Your task to perform on an android device: toggle notifications settings in the gmail app Image 0: 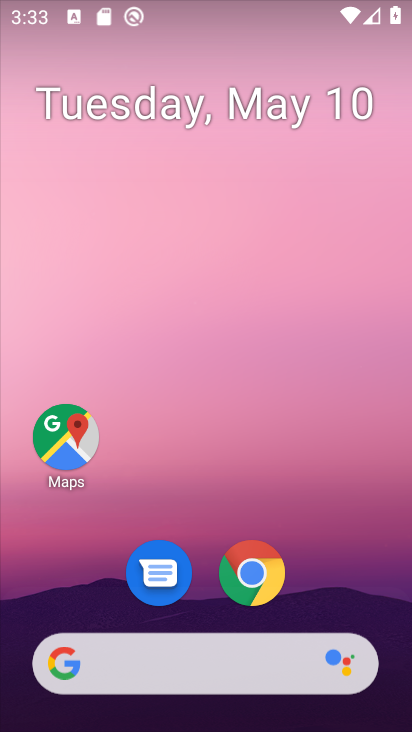
Step 0: click (229, 579)
Your task to perform on an android device: toggle notifications settings in the gmail app Image 1: 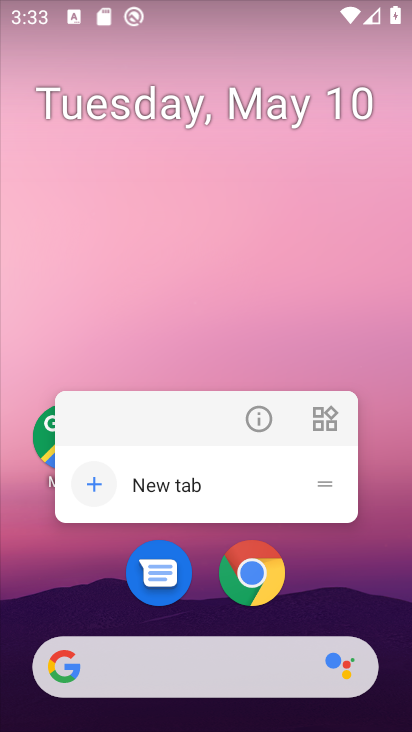
Step 1: click (191, 619)
Your task to perform on an android device: toggle notifications settings in the gmail app Image 2: 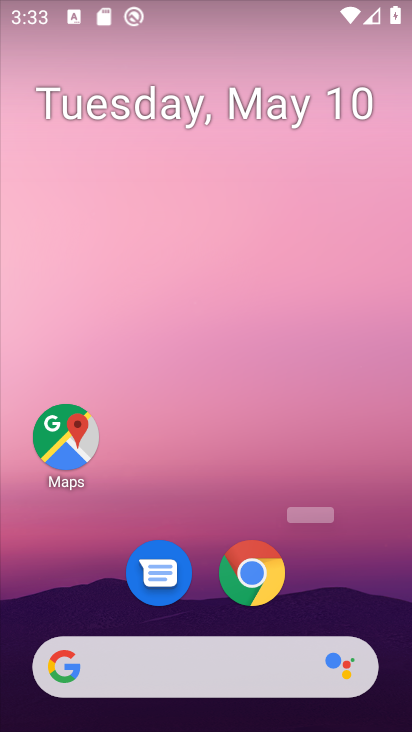
Step 2: drag from (191, 619) to (245, 239)
Your task to perform on an android device: toggle notifications settings in the gmail app Image 3: 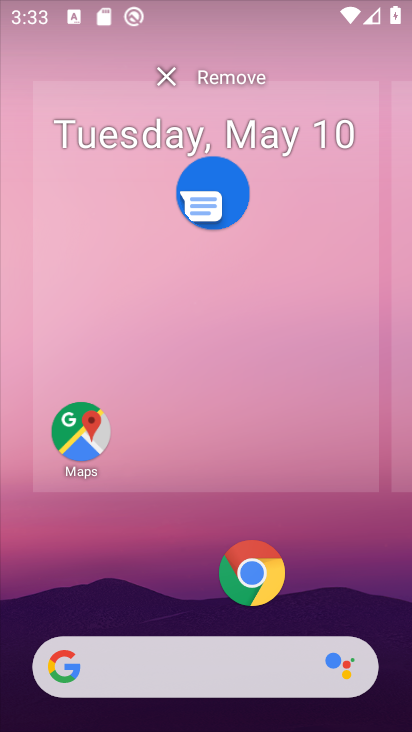
Step 3: click (245, 233)
Your task to perform on an android device: toggle notifications settings in the gmail app Image 4: 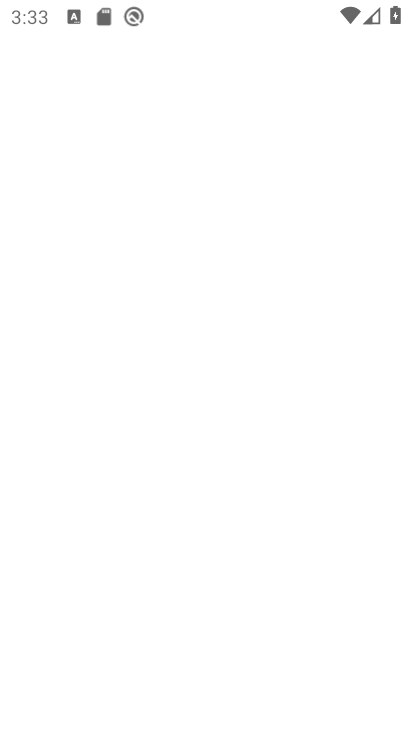
Step 4: press home button
Your task to perform on an android device: toggle notifications settings in the gmail app Image 5: 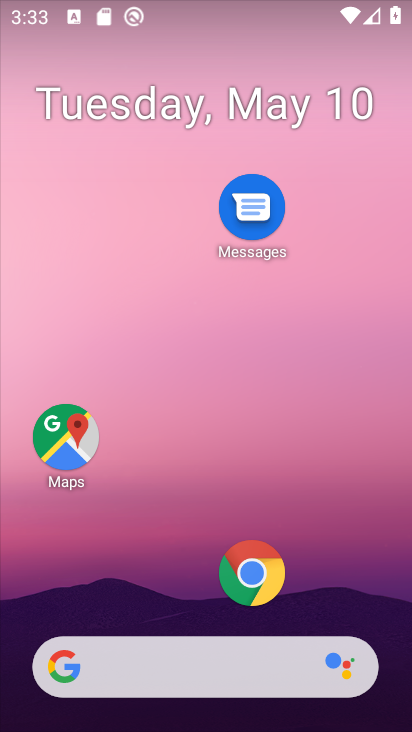
Step 5: drag from (181, 608) to (237, 121)
Your task to perform on an android device: toggle notifications settings in the gmail app Image 6: 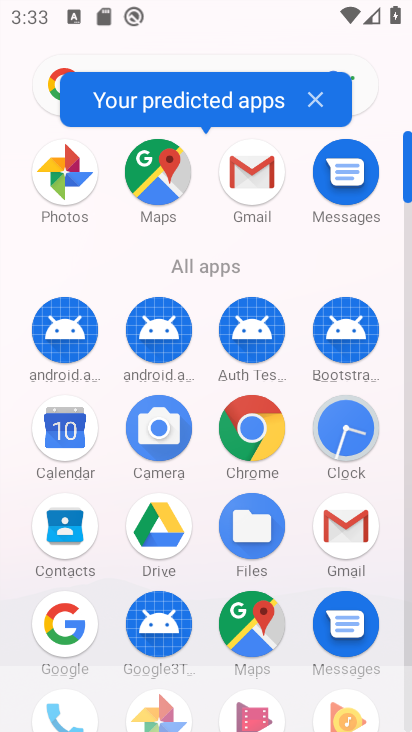
Step 6: drag from (210, 592) to (222, 292)
Your task to perform on an android device: toggle notifications settings in the gmail app Image 7: 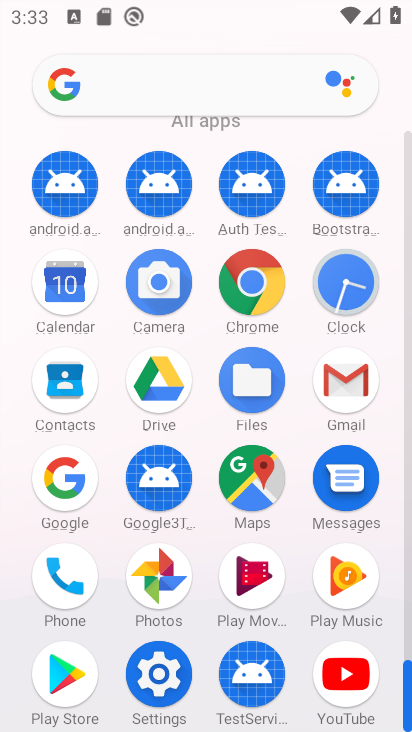
Step 7: drag from (189, 572) to (216, 351)
Your task to perform on an android device: toggle notifications settings in the gmail app Image 8: 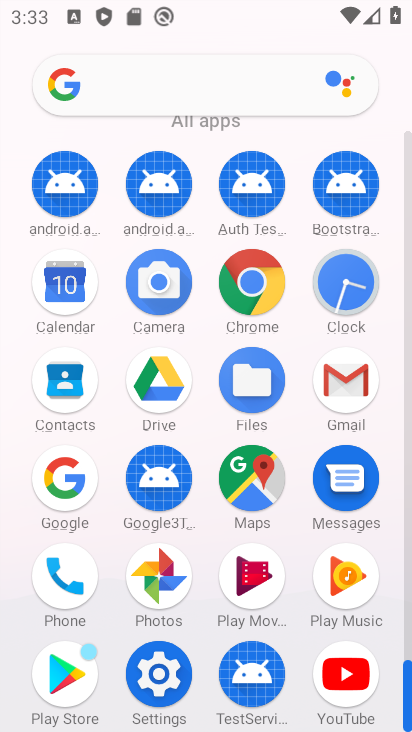
Step 8: click (344, 396)
Your task to perform on an android device: toggle notifications settings in the gmail app Image 9: 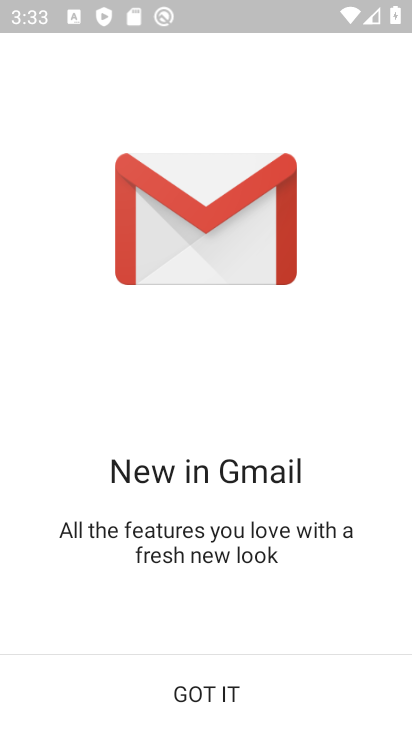
Step 9: click (262, 698)
Your task to perform on an android device: toggle notifications settings in the gmail app Image 10: 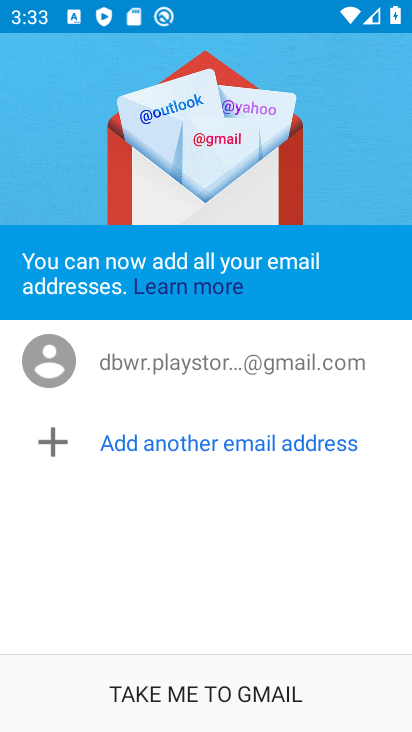
Step 10: click (255, 691)
Your task to perform on an android device: toggle notifications settings in the gmail app Image 11: 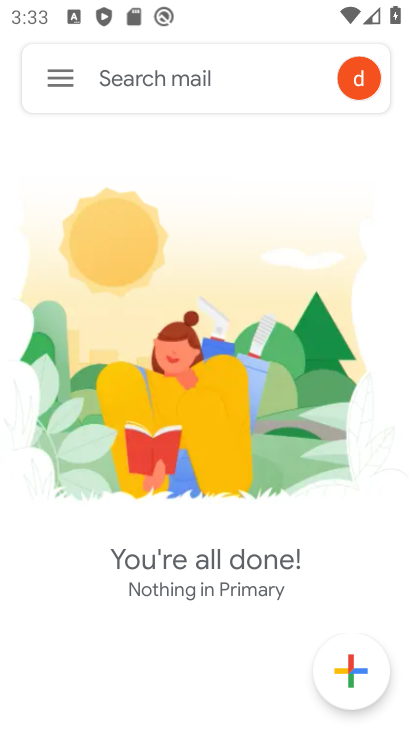
Step 11: click (56, 91)
Your task to perform on an android device: toggle notifications settings in the gmail app Image 12: 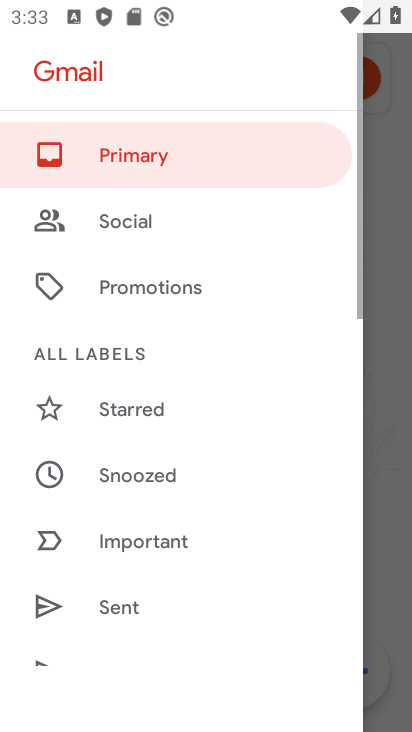
Step 12: drag from (187, 642) to (267, 305)
Your task to perform on an android device: toggle notifications settings in the gmail app Image 13: 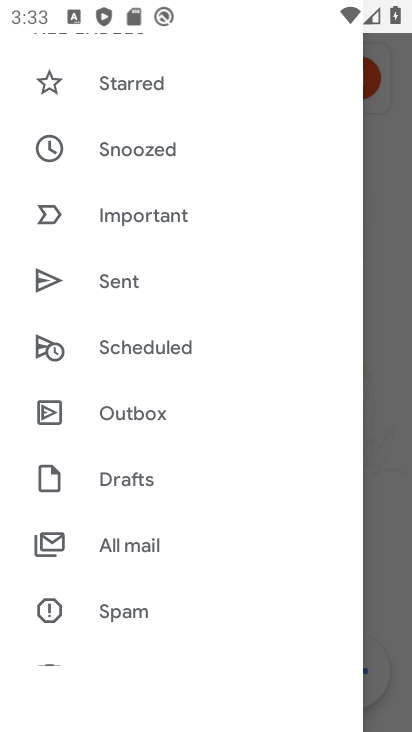
Step 13: drag from (157, 621) to (199, 520)
Your task to perform on an android device: toggle notifications settings in the gmail app Image 14: 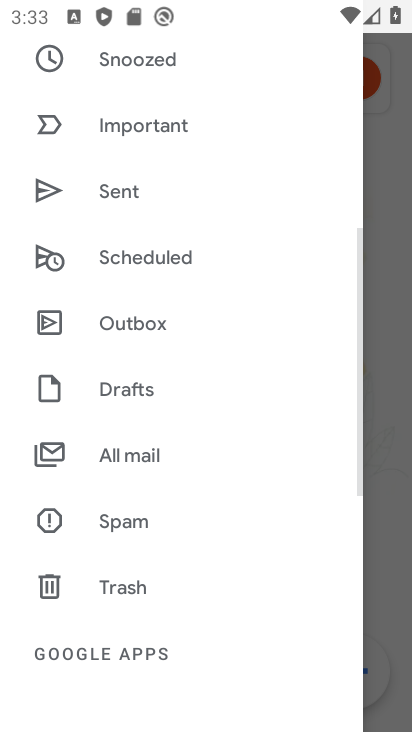
Step 14: drag from (184, 551) to (215, 431)
Your task to perform on an android device: toggle notifications settings in the gmail app Image 15: 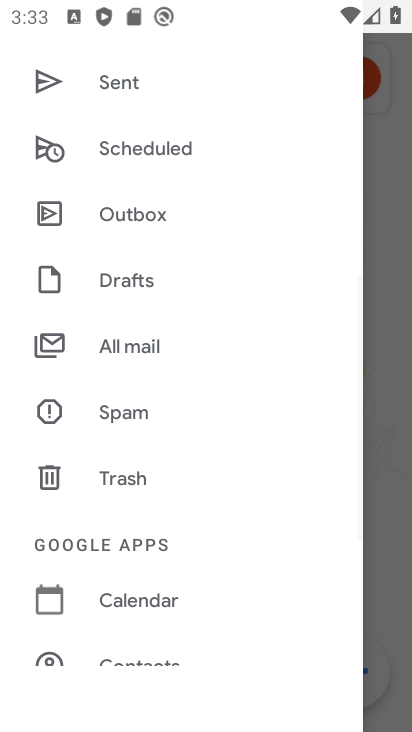
Step 15: drag from (171, 605) to (252, 350)
Your task to perform on an android device: toggle notifications settings in the gmail app Image 16: 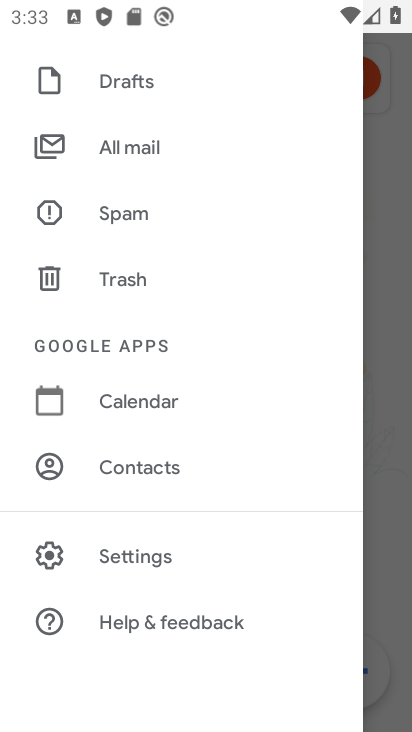
Step 16: click (163, 543)
Your task to perform on an android device: toggle notifications settings in the gmail app Image 17: 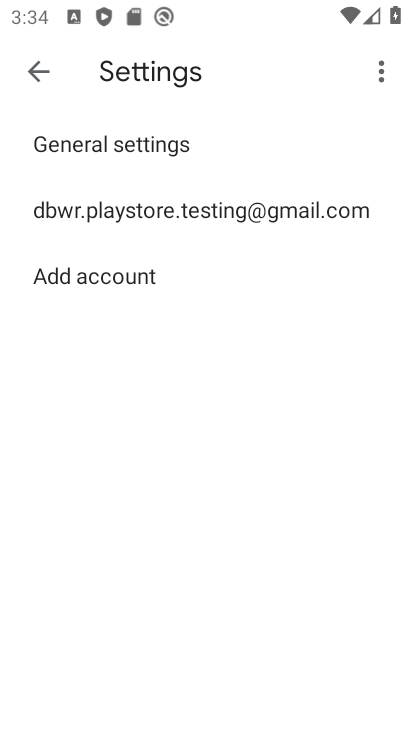
Step 17: click (234, 206)
Your task to perform on an android device: toggle notifications settings in the gmail app Image 18: 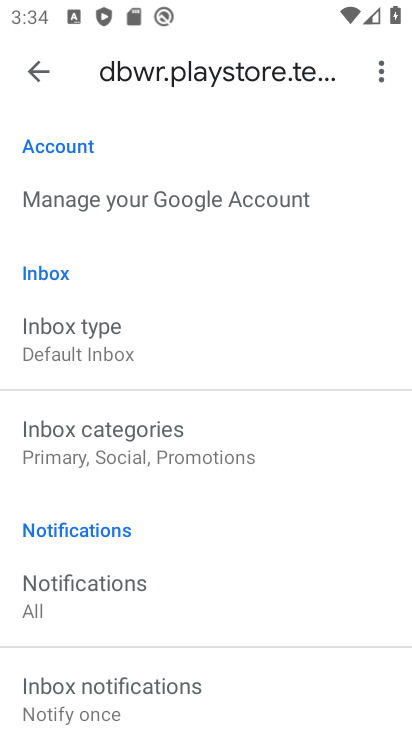
Step 18: drag from (188, 586) to (231, 472)
Your task to perform on an android device: toggle notifications settings in the gmail app Image 19: 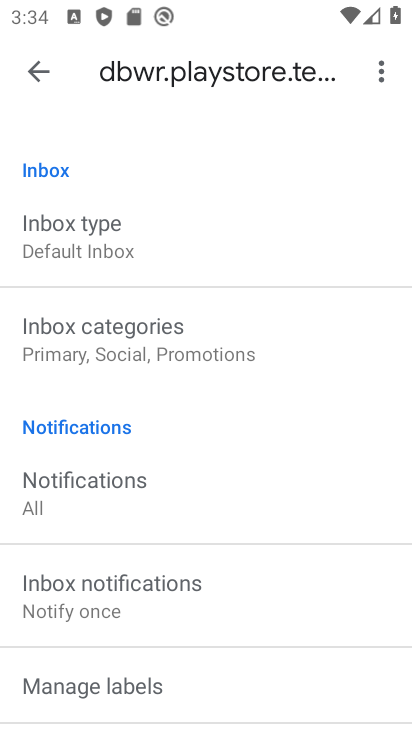
Step 19: drag from (194, 668) to (238, 452)
Your task to perform on an android device: toggle notifications settings in the gmail app Image 20: 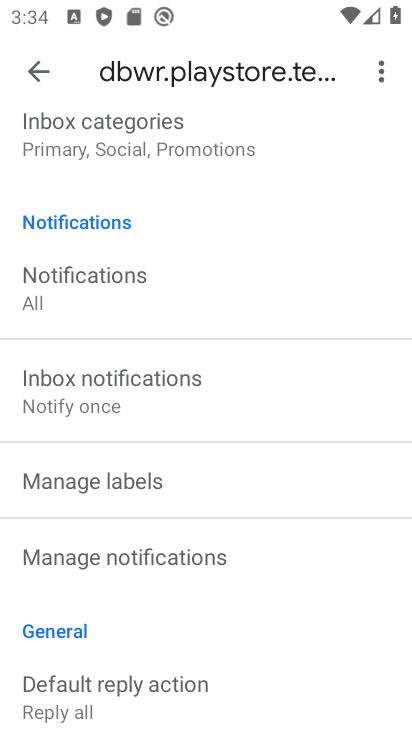
Step 20: click (192, 566)
Your task to perform on an android device: toggle notifications settings in the gmail app Image 21: 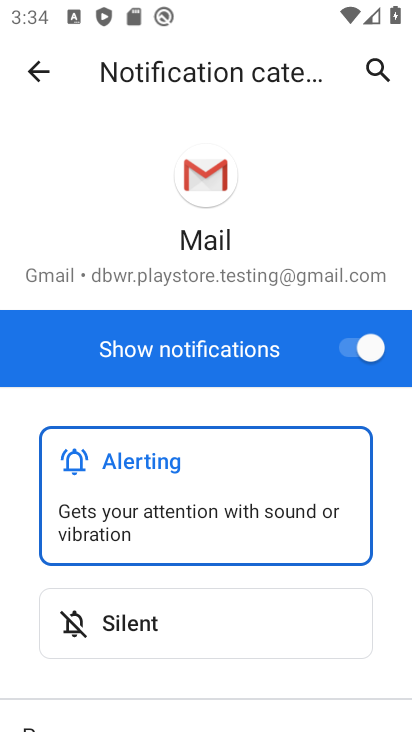
Step 21: drag from (291, 644) to (326, 448)
Your task to perform on an android device: toggle notifications settings in the gmail app Image 22: 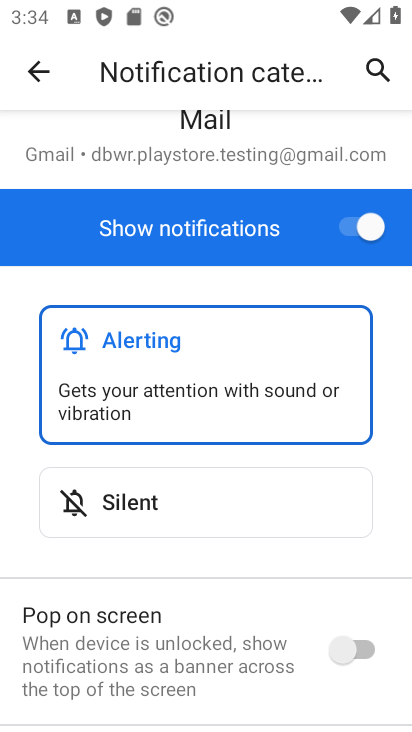
Step 22: click (352, 216)
Your task to perform on an android device: toggle notifications settings in the gmail app Image 23: 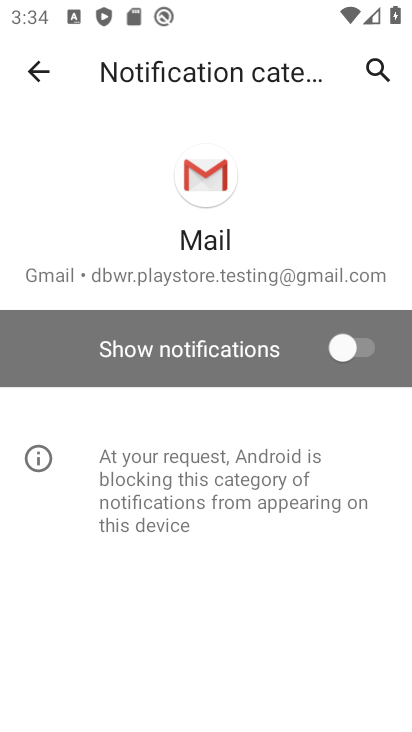
Step 23: task complete